Your task to perform on an android device: Open Chrome and go to settings Image 0: 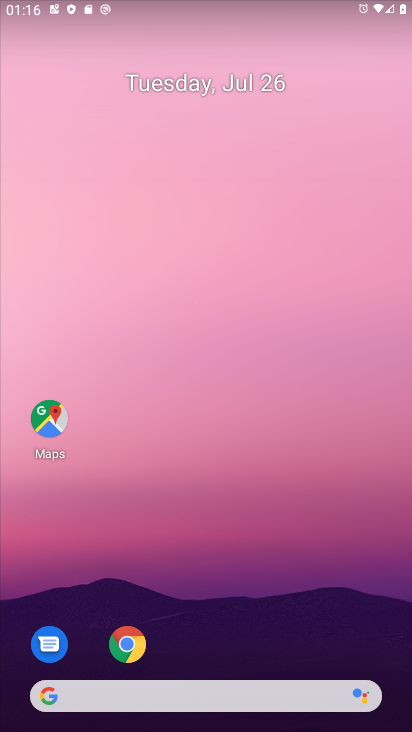
Step 0: drag from (237, 547) to (252, 200)
Your task to perform on an android device: Open Chrome and go to settings Image 1: 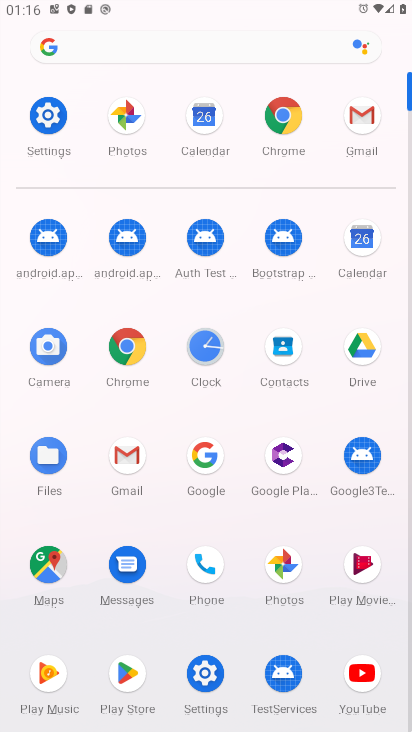
Step 1: click (123, 350)
Your task to perform on an android device: Open Chrome and go to settings Image 2: 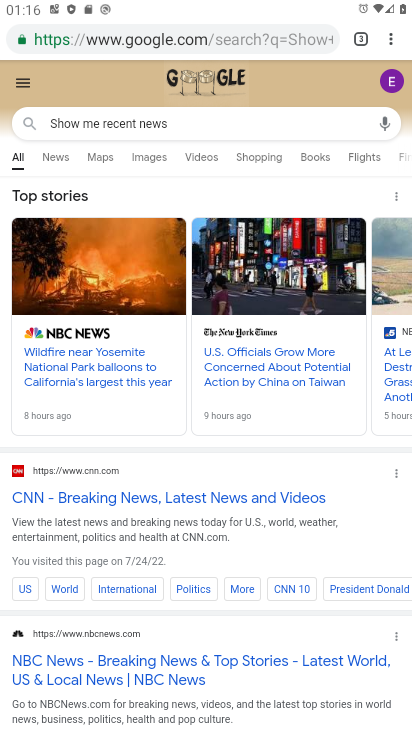
Step 2: click (390, 29)
Your task to perform on an android device: Open Chrome and go to settings Image 3: 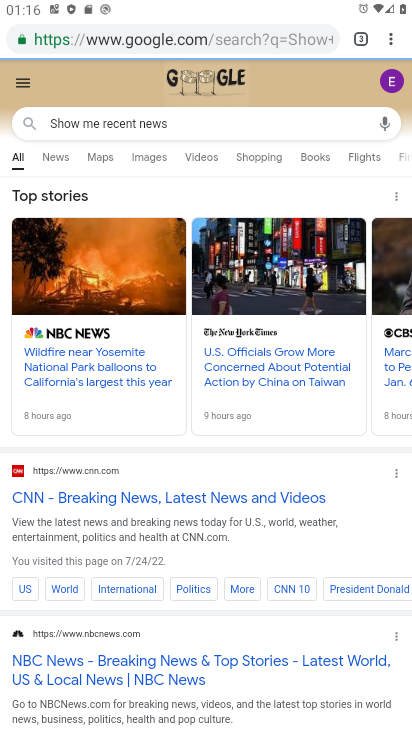
Step 3: click (402, 33)
Your task to perform on an android device: Open Chrome and go to settings Image 4: 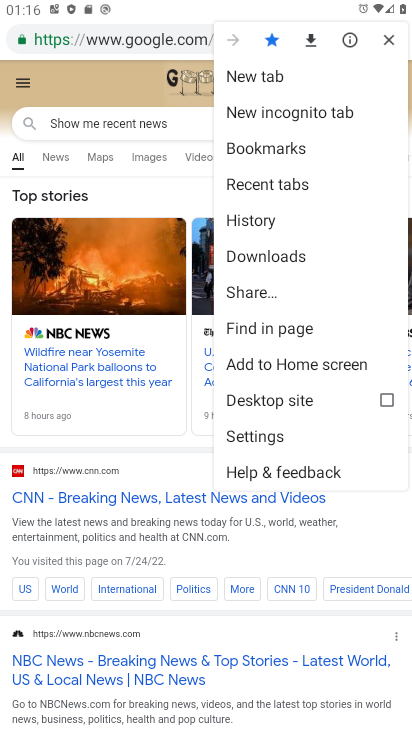
Step 4: click (288, 441)
Your task to perform on an android device: Open Chrome and go to settings Image 5: 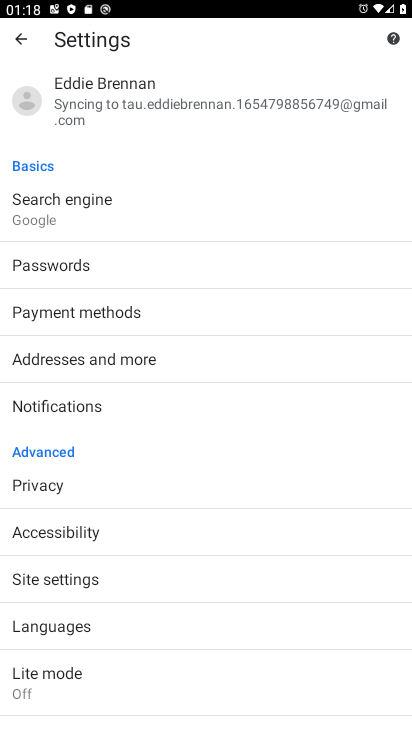
Step 5: task complete